Your task to perform on an android device: Play the new Beyonce video on YouTube Image 0: 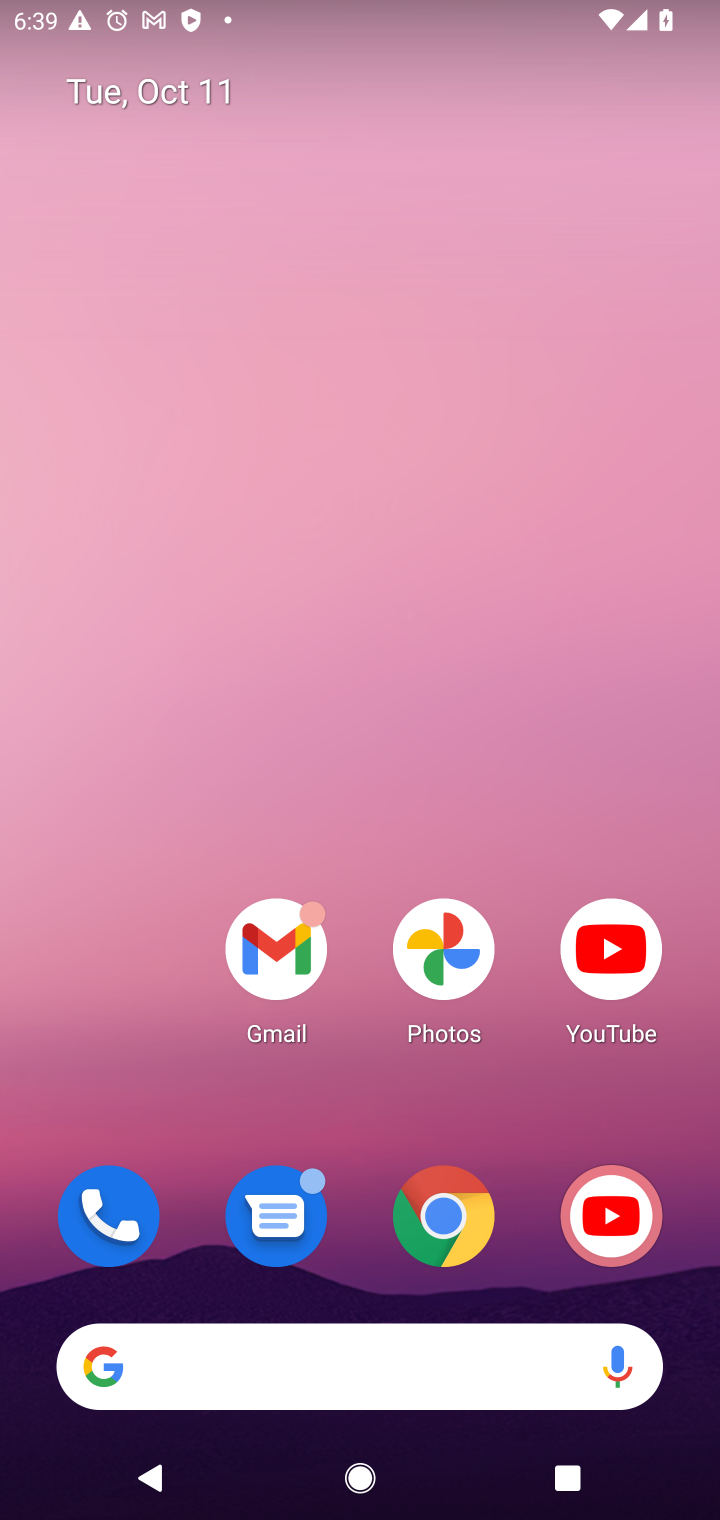
Step 0: click (617, 914)
Your task to perform on an android device: Play the new Beyonce video on YouTube Image 1: 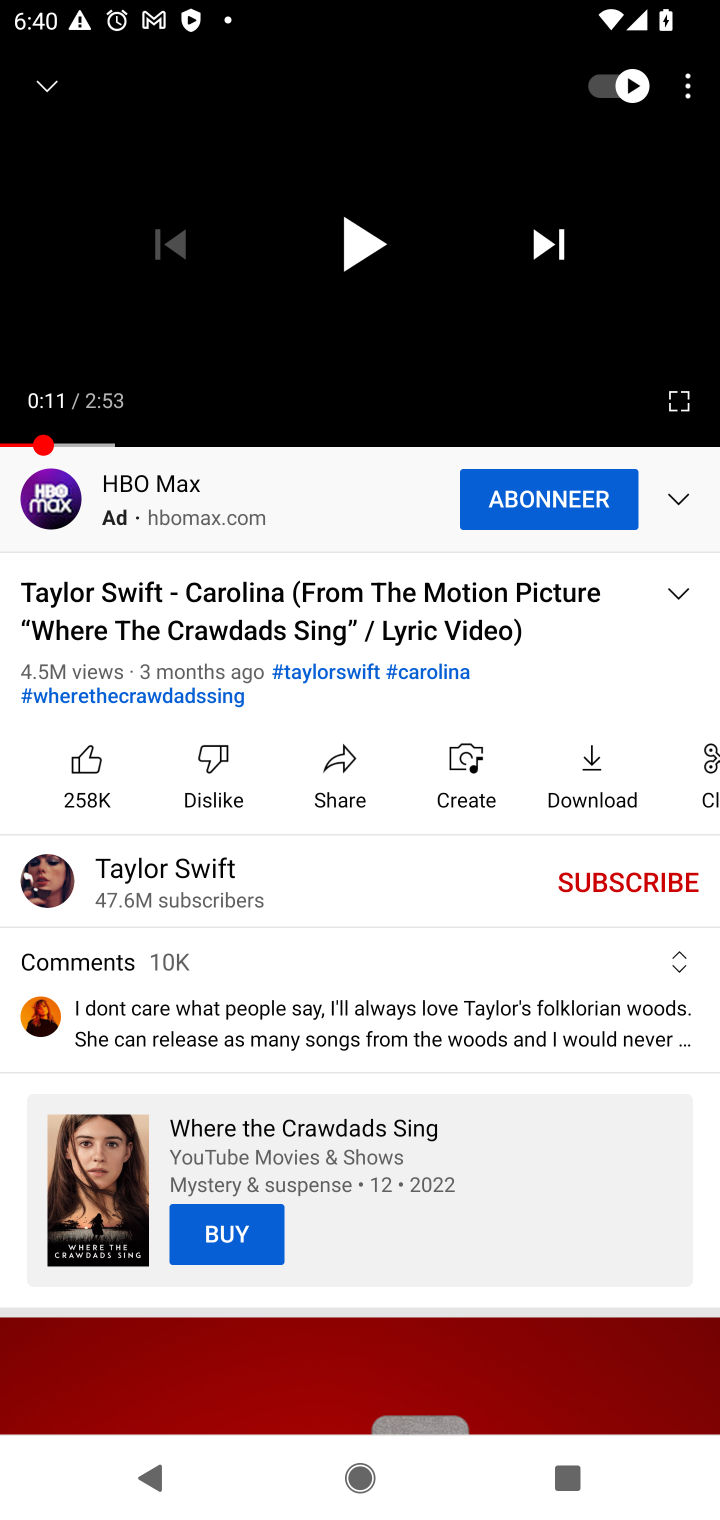
Step 1: click (44, 93)
Your task to perform on an android device: Play the new Beyonce video on YouTube Image 2: 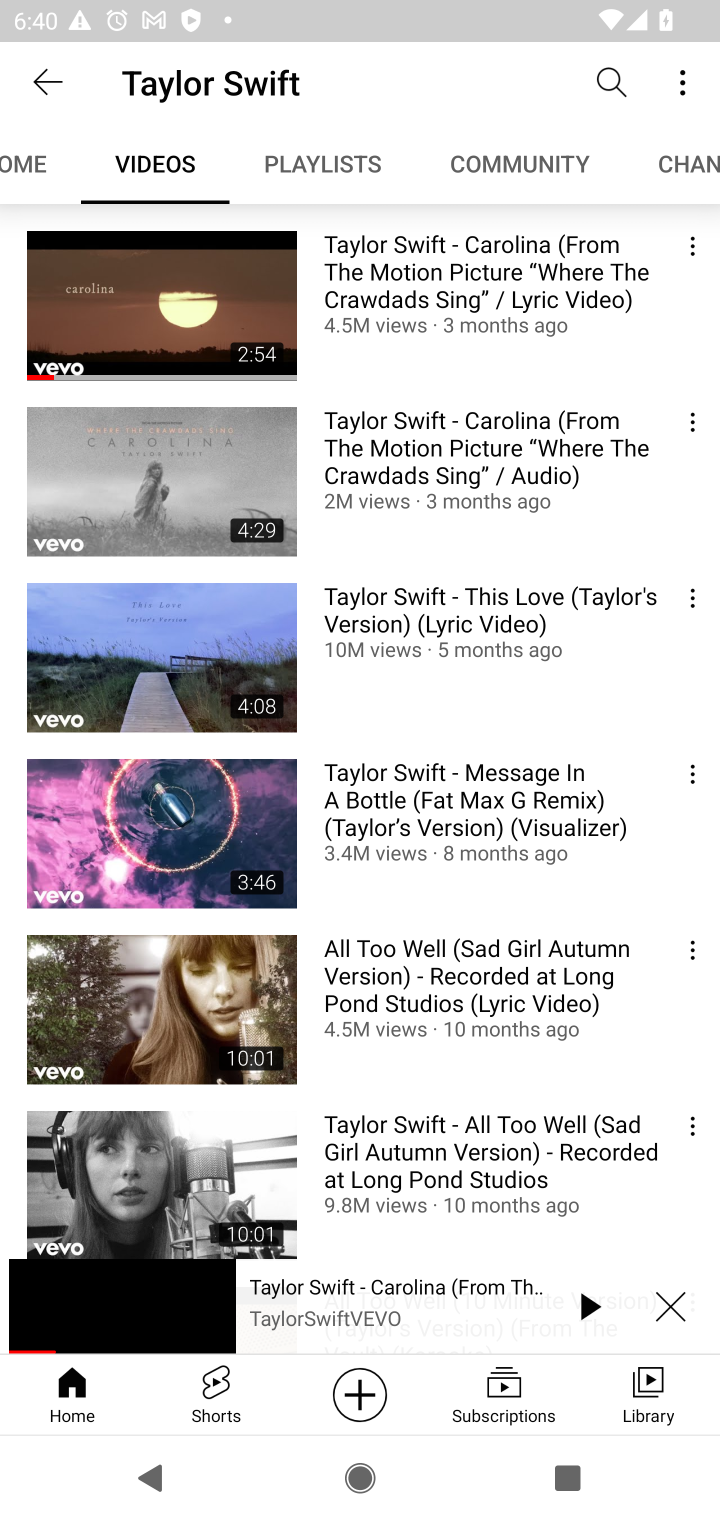
Step 2: click (42, 90)
Your task to perform on an android device: Play the new Beyonce video on YouTube Image 3: 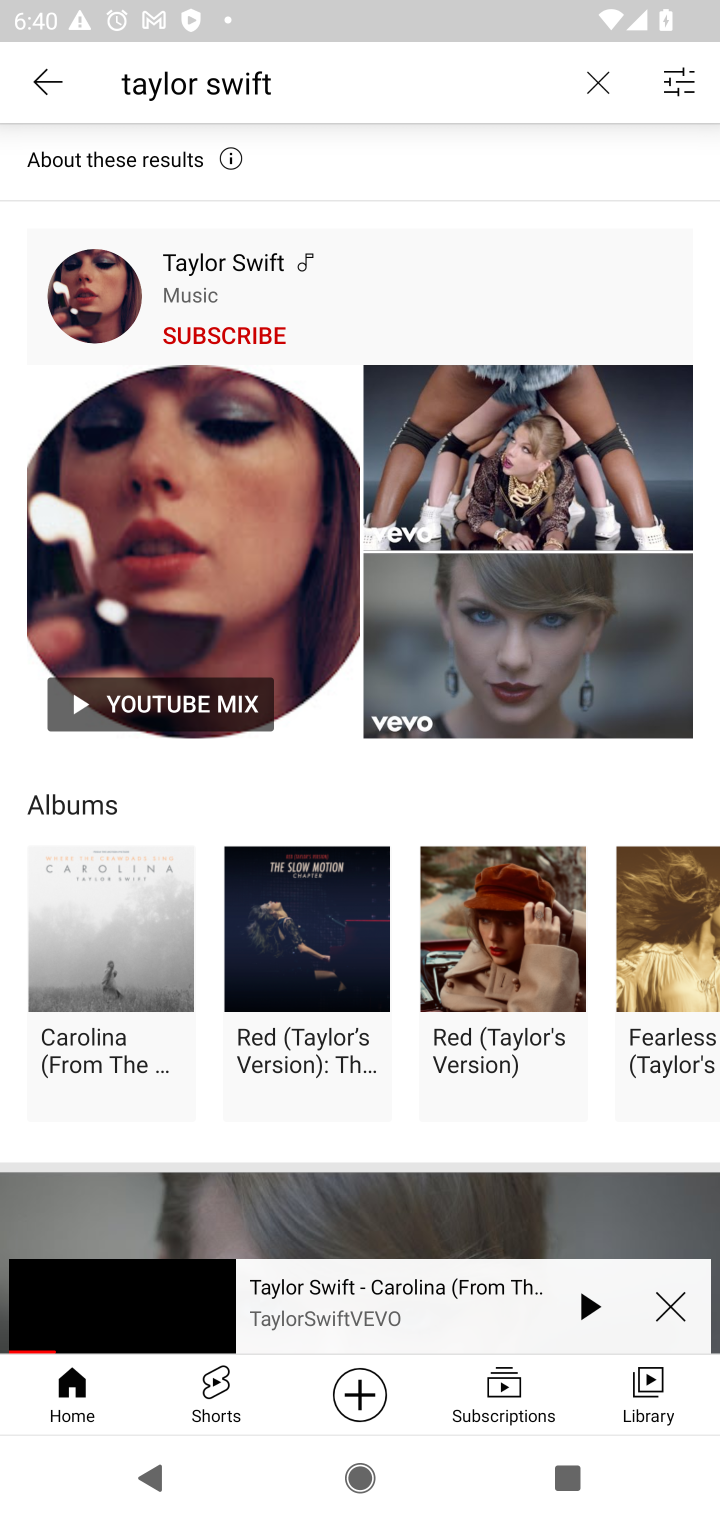
Step 3: click (598, 89)
Your task to perform on an android device: Play the new Beyonce video on YouTube Image 4: 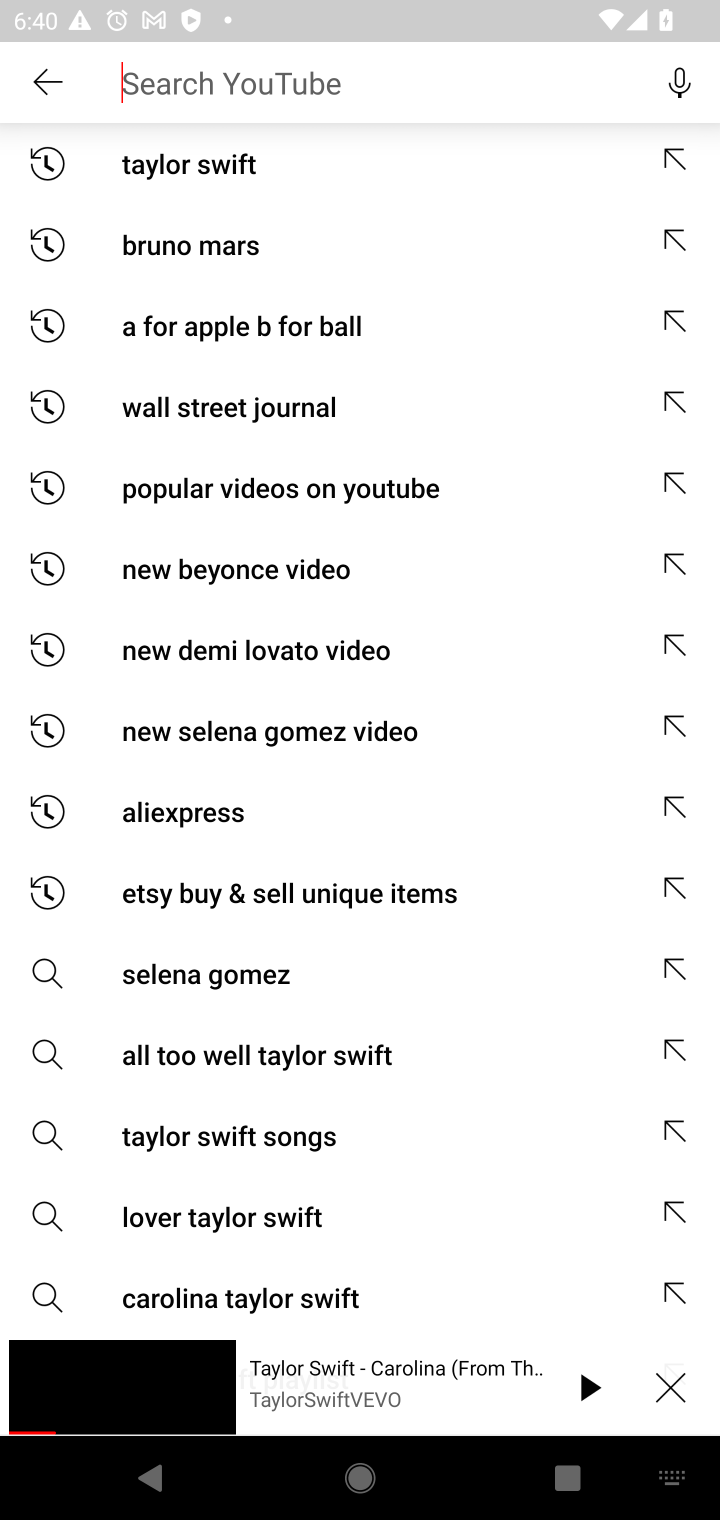
Step 4: type "beyonce"
Your task to perform on an android device: Play the new Beyonce video on YouTube Image 5: 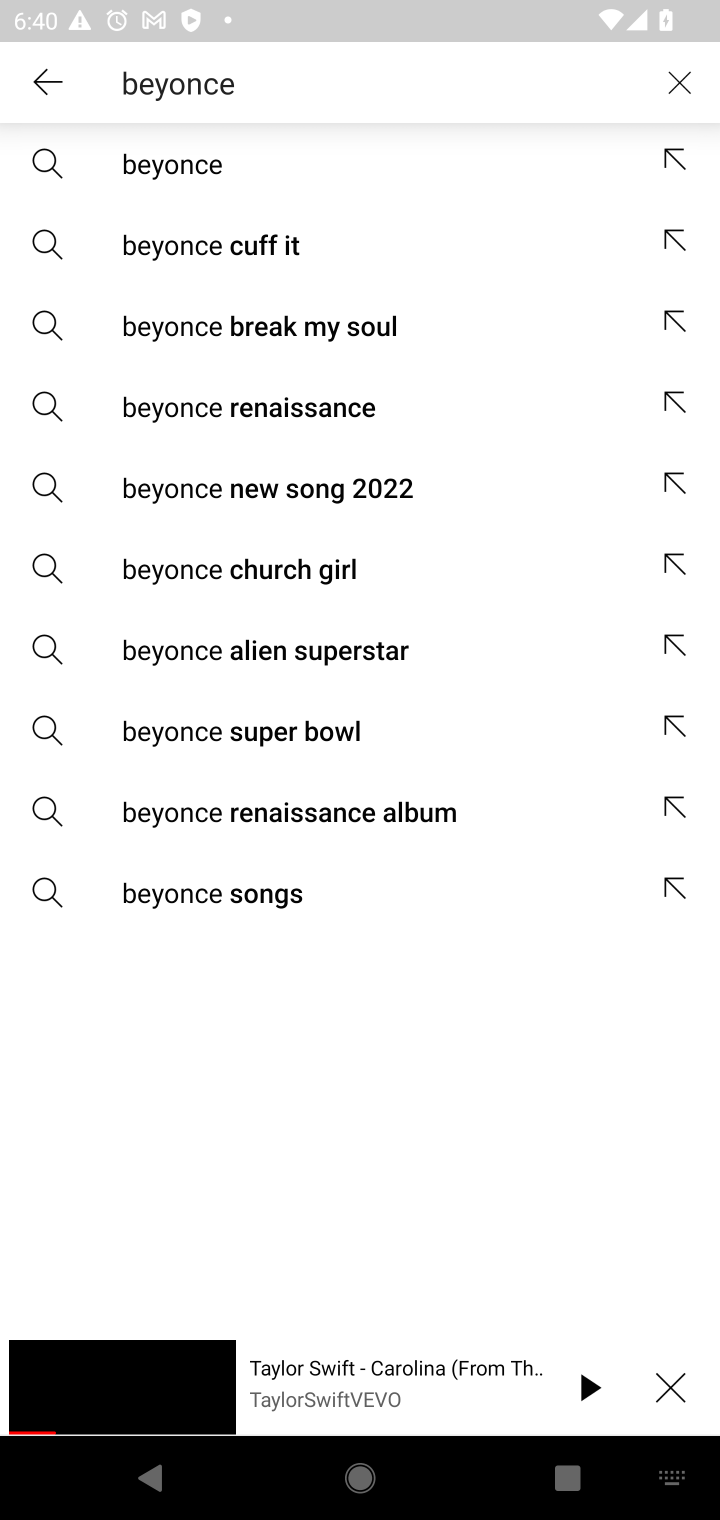
Step 5: press enter
Your task to perform on an android device: Play the new Beyonce video on YouTube Image 6: 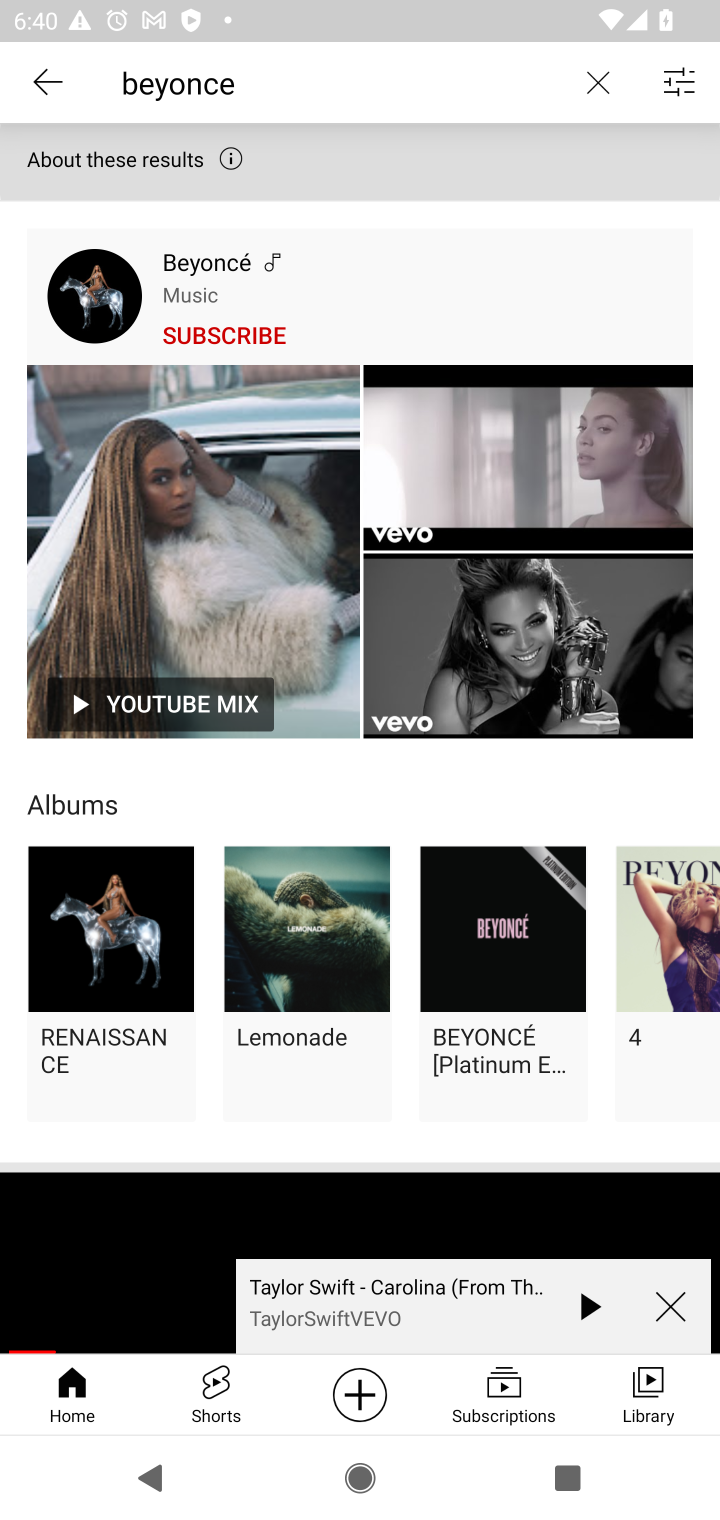
Step 6: click (61, 292)
Your task to perform on an android device: Play the new Beyonce video on YouTube Image 7: 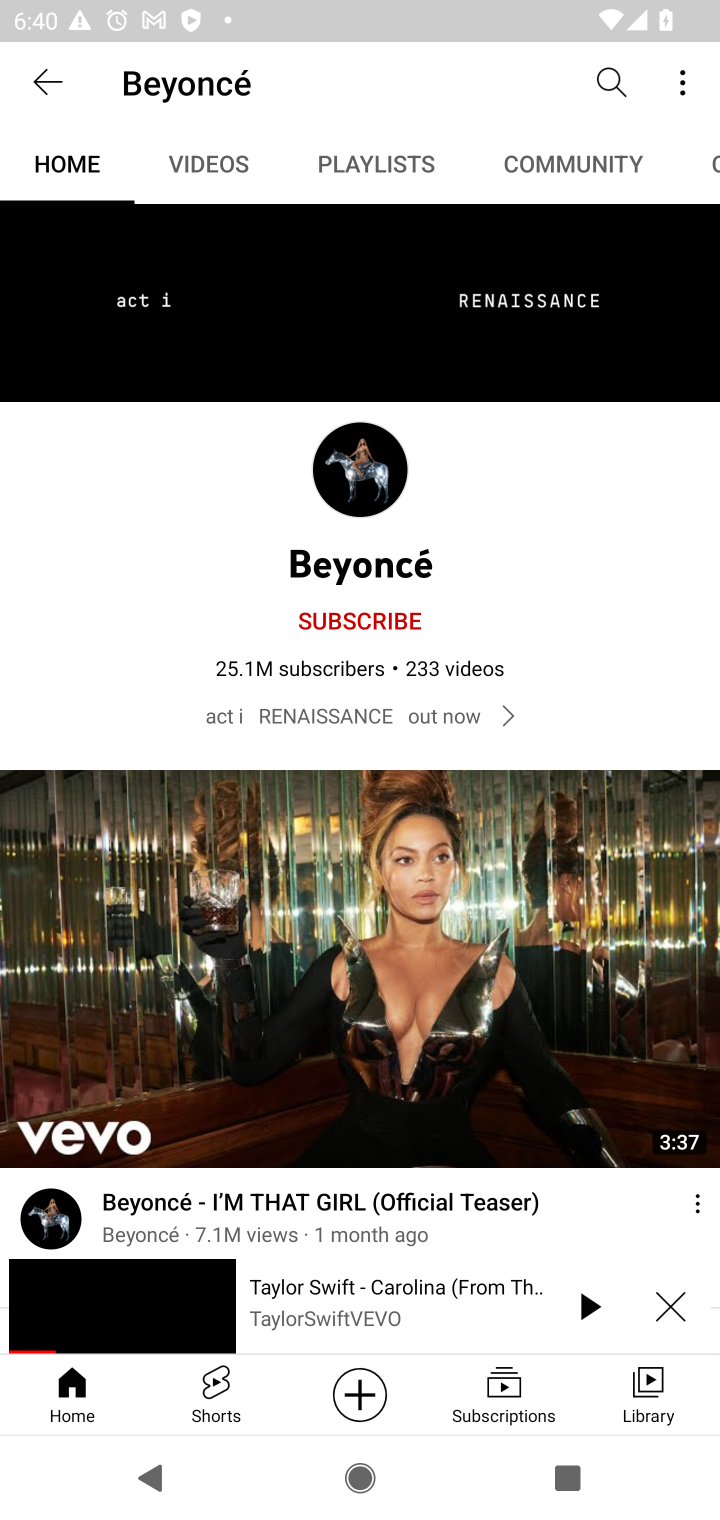
Step 7: click (233, 163)
Your task to perform on an android device: Play the new Beyonce video on YouTube Image 8: 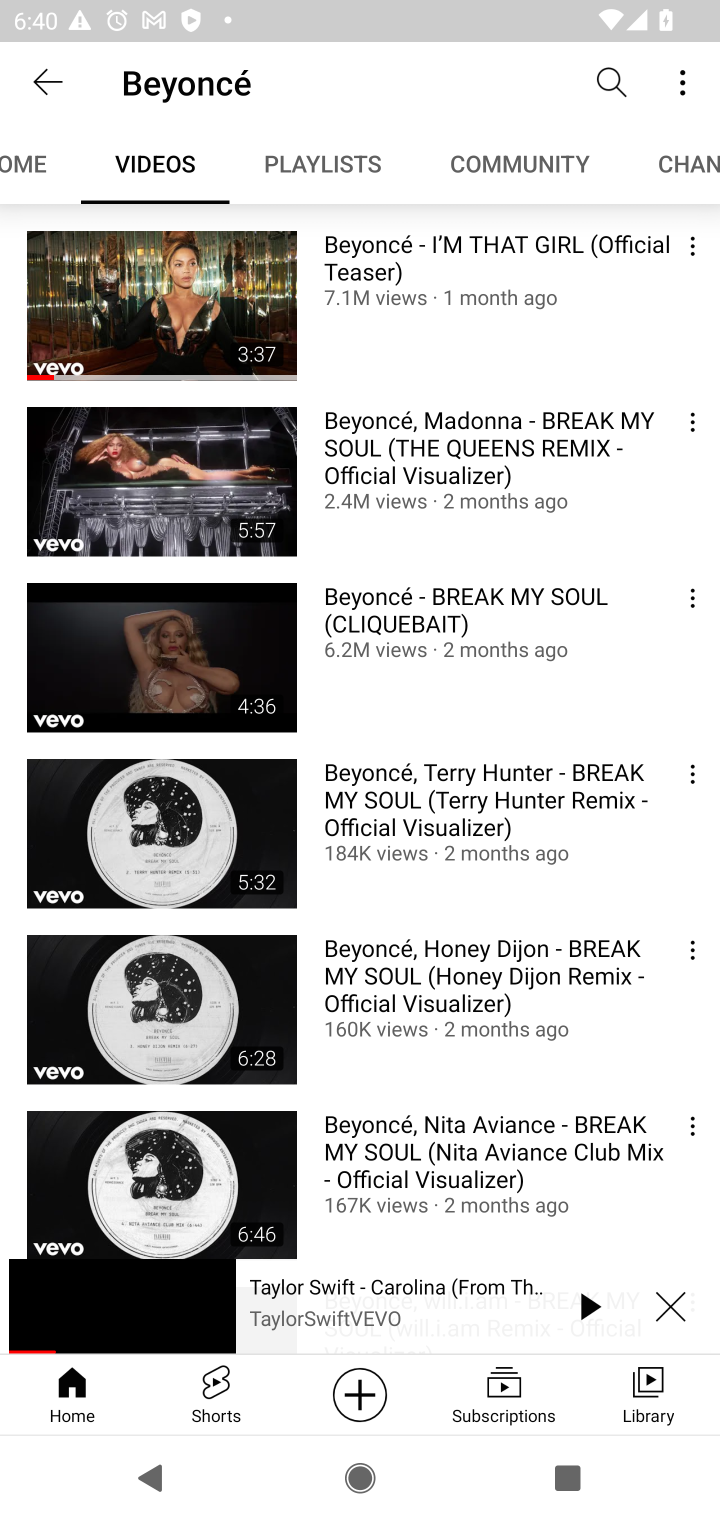
Step 8: task complete